Your task to perform on an android device: turn off improve location accuracy Image 0: 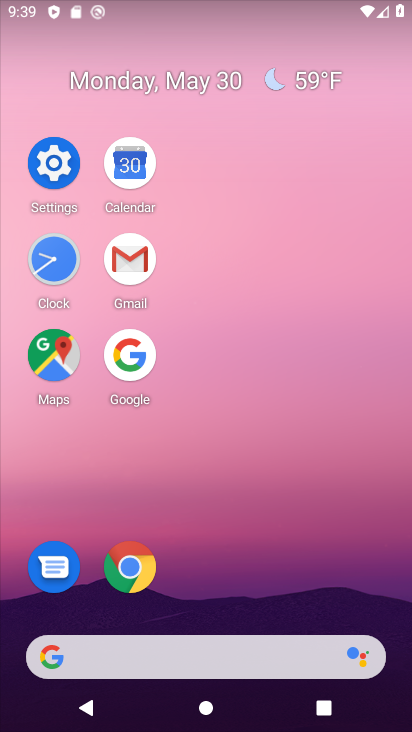
Step 0: click (54, 153)
Your task to perform on an android device: turn off improve location accuracy Image 1: 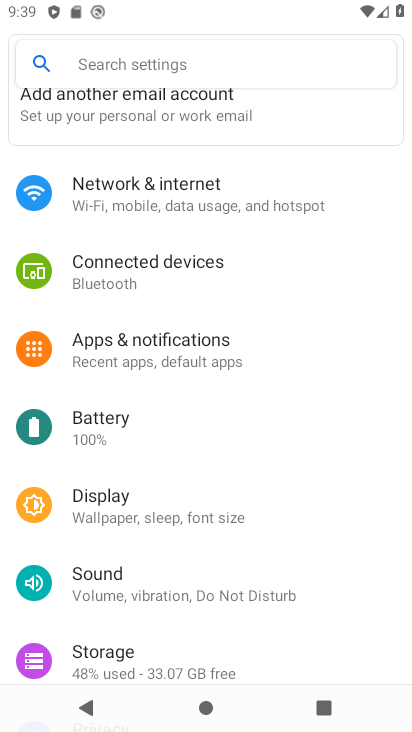
Step 1: drag from (308, 595) to (345, 134)
Your task to perform on an android device: turn off improve location accuracy Image 2: 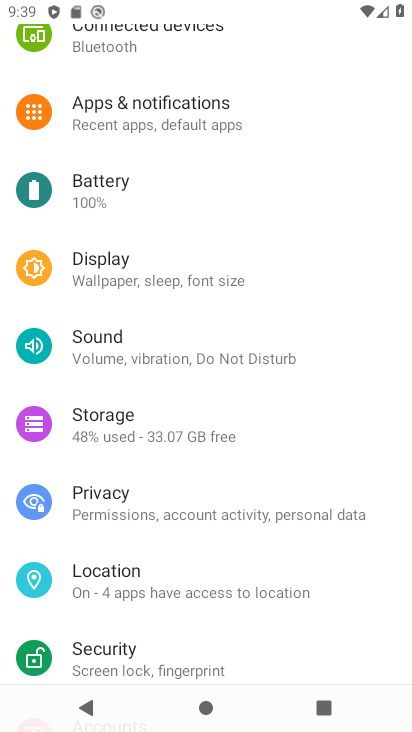
Step 2: click (187, 584)
Your task to perform on an android device: turn off improve location accuracy Image 3: 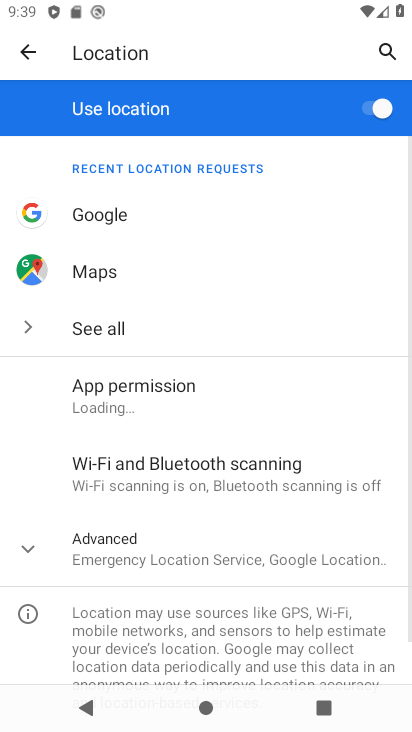
Step 3: click (184, 560)
Your task to perform on an android device: turn off improve location accuracy Image 4: 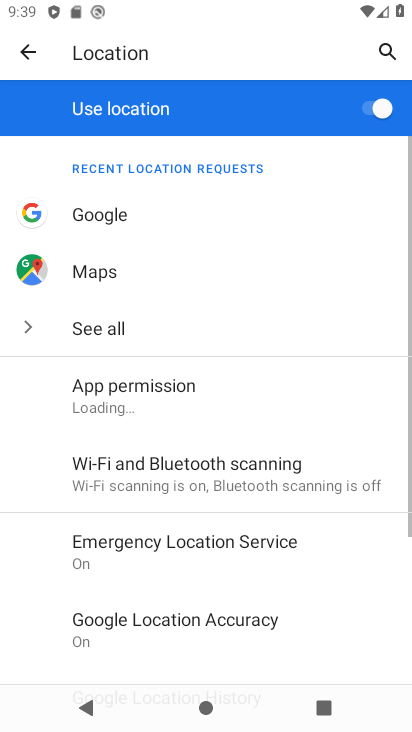
Step 4: drag from (186, 560) to (208, 218)
Your task to perform on an android device: turn off improve location accuracy Image 5: 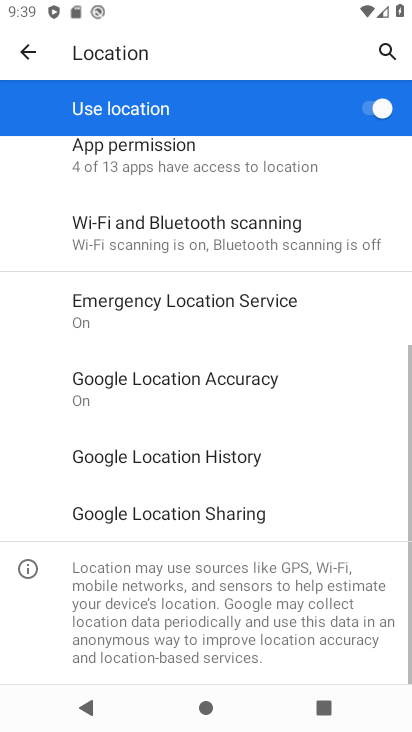
Step 5: click (228, 369)
Your task to perform on an android device: turn off improve location accuracy Image 6: 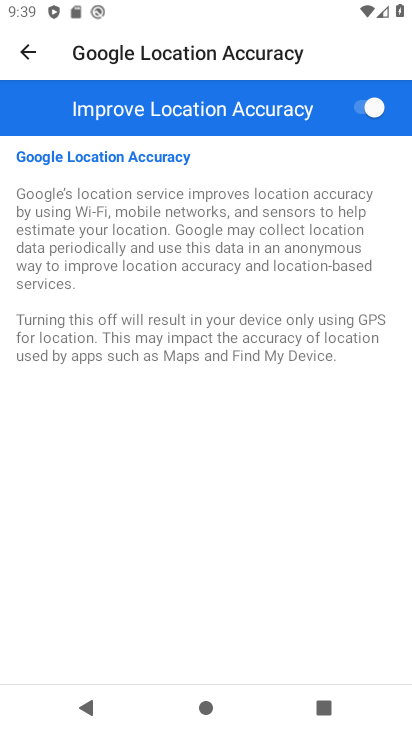
Step 6: click (371, 107)
Your task to perform on an android device: turn off improve location accuracy Image 7: 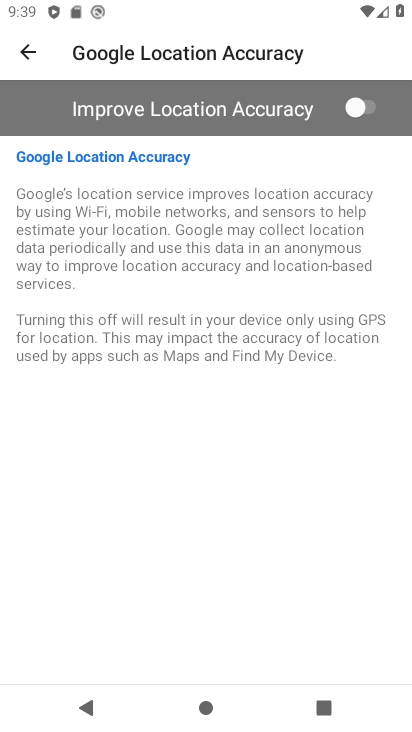
Step 7: task complete